Your task to perform on an android device: open the mobile data screen to see how much data has been used Image 0: 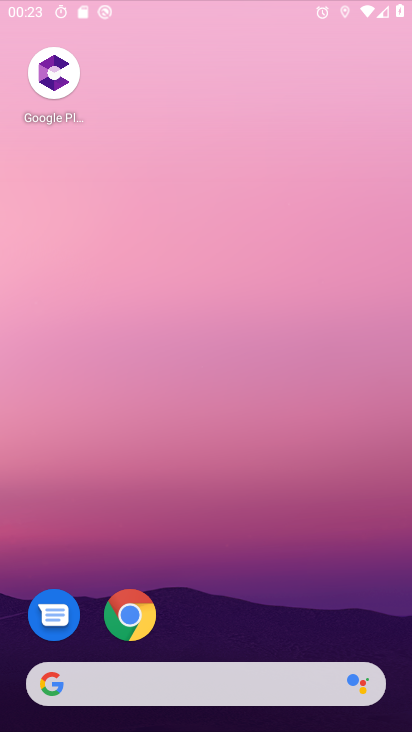
Step 0: drag from (293, 686) to (211, 143)
Your task to perform on an android device: open the mobile data screen to see how much data has been used Image 1: 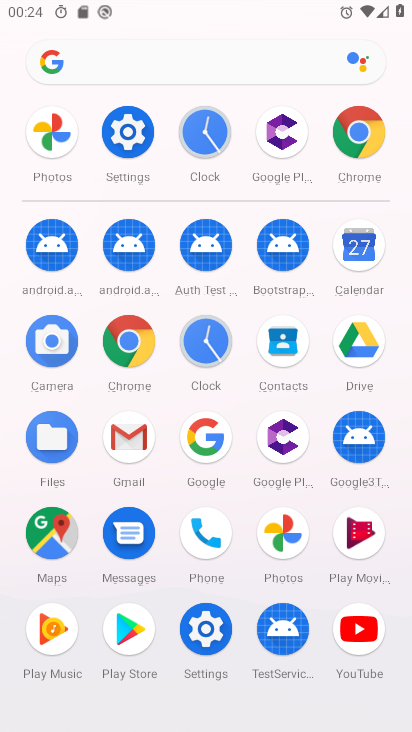
Step 1: click (115, 158)
Your task to perform on an android device: open the mobile data screen to see how much data has been used Image 2: 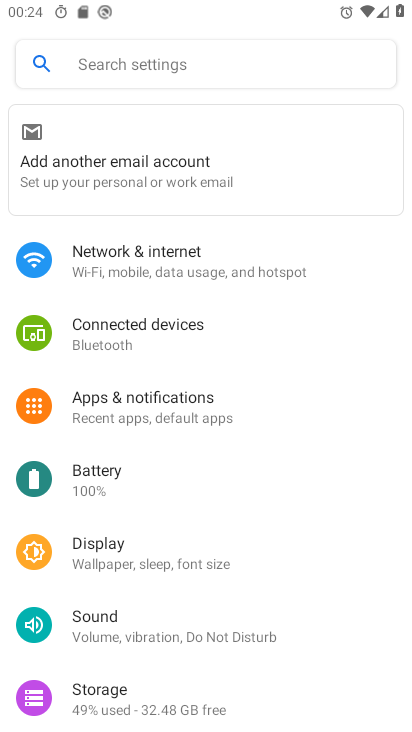
Step 2: click (166, 254)
Your task to perform on an android device: open the mobile data screen to see how much data has been used Image 3: 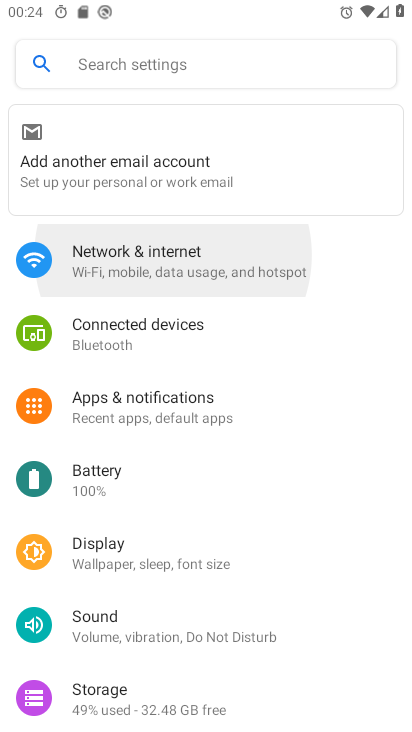
Step 3: click (166, 254)
Your task to perform on an android device: open the mobile data screen to see how much data has been used Image 4: 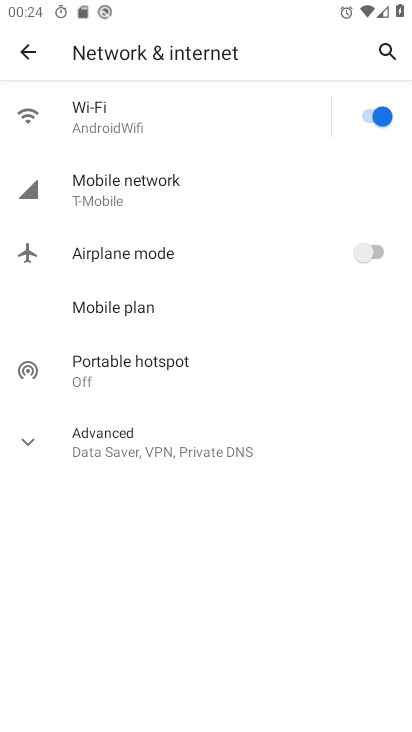
Step 4: click (89, 194)
Your task to perform on an android device: open the mobile data screen to see how much data has been used Image 5: 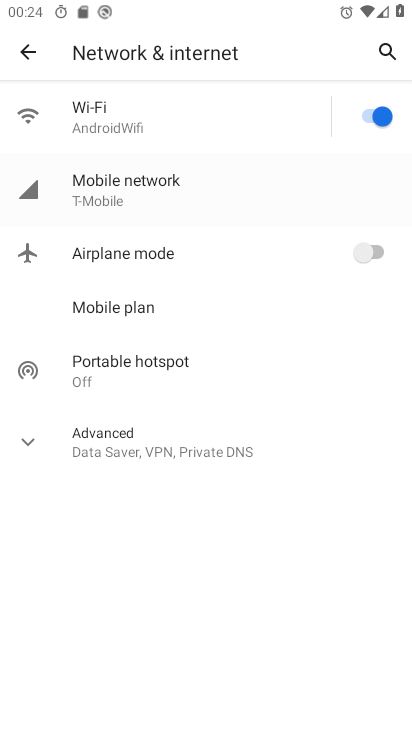
Step 5: click (100, 191)
Your task to perform on an android device: open the mobile data screen to see how much data has been used Image 6: 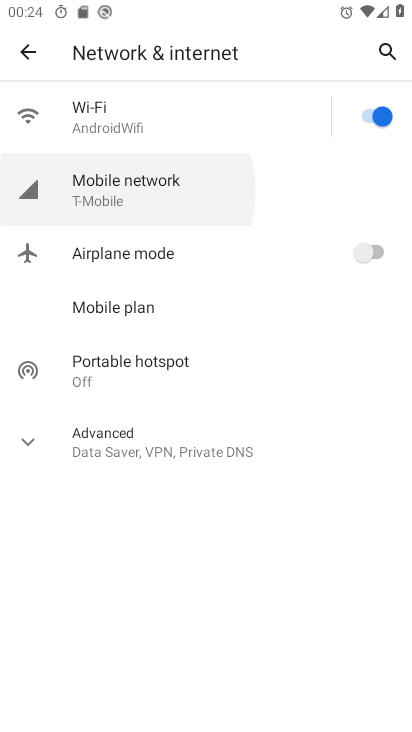
Step 6: click (100, 191)
Your task to perform on an android device: open the mobile data screen to see how much data has been used Image 7: 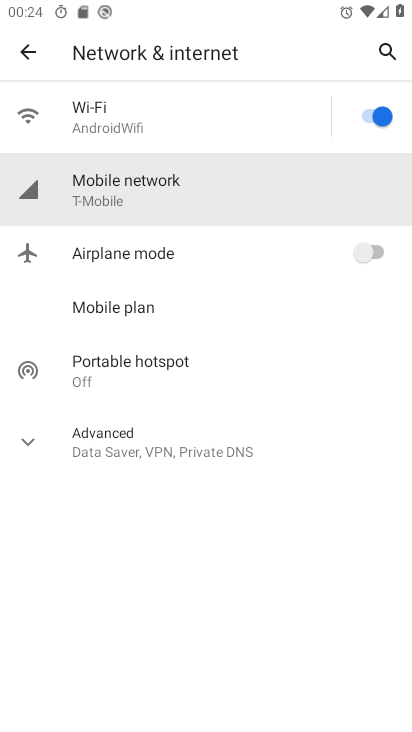
Step 7: click (100, 191)
Your task to perform on an android device: open the mobile data screen to see how much data has been used Image 8: 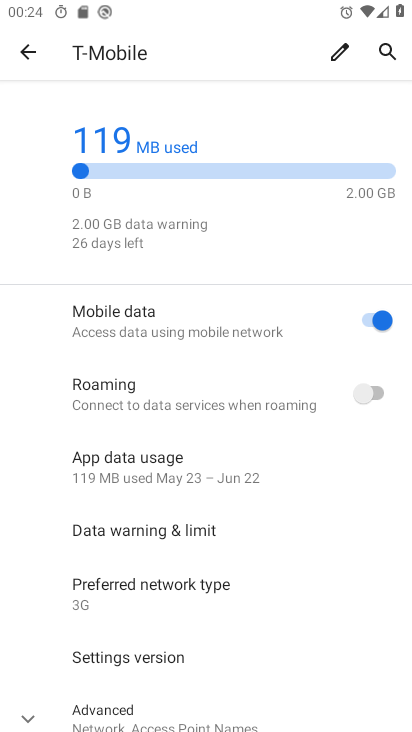
Step 8: task complete